Your task to perform on an android device: Open accessibility settings Image 0: 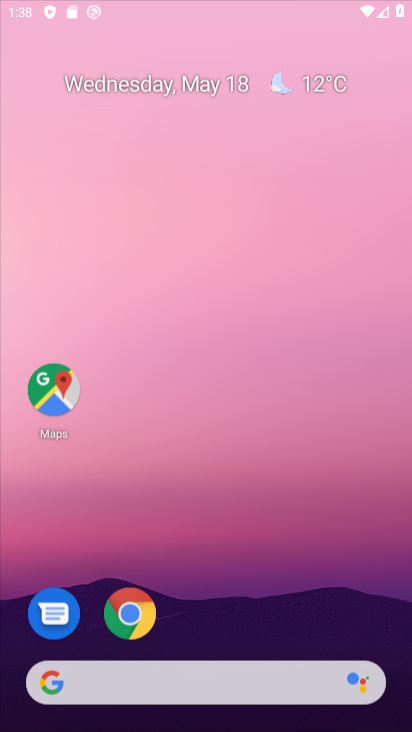
Step 0: click (264, 31)
Your task to perform on an android device: Open accessibility settings Image 1: 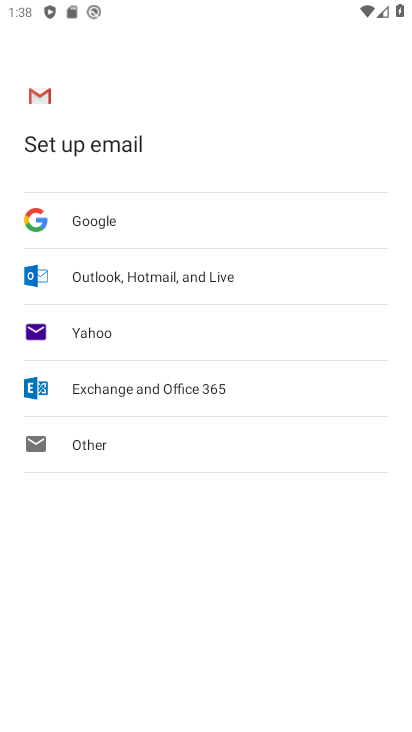
Step 1: press home button
Your task to perform on an android device: Open accessibility settings Image 2: 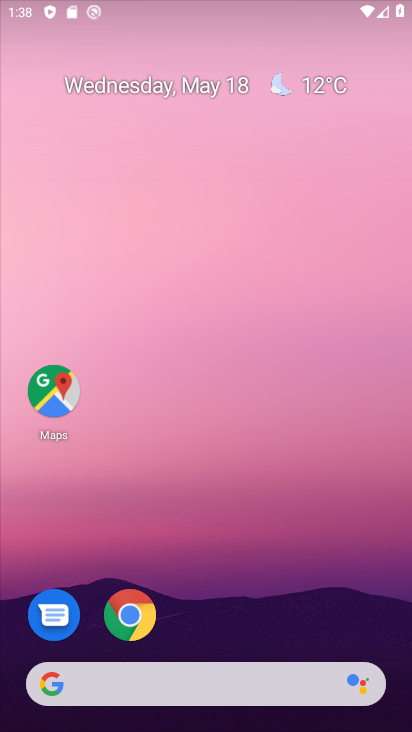
Step 2: drag from (339, 496) to (272, 66)
Your task to perform on an android device: Open accessibility settings Image 3: 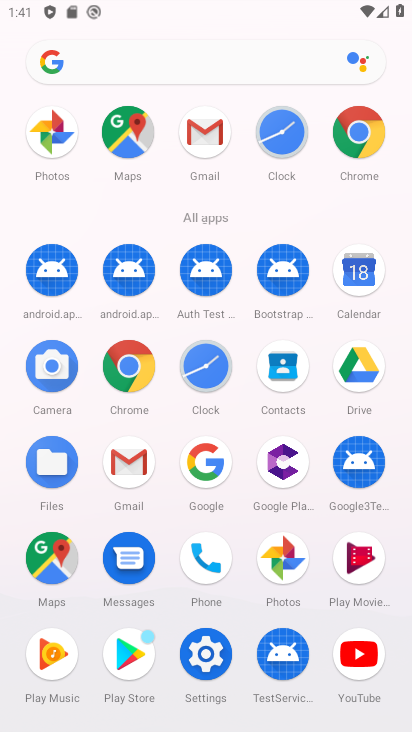
Step 3: click (206, 661)
Your task to perform on an android device: Open accessibility settings Image 4: 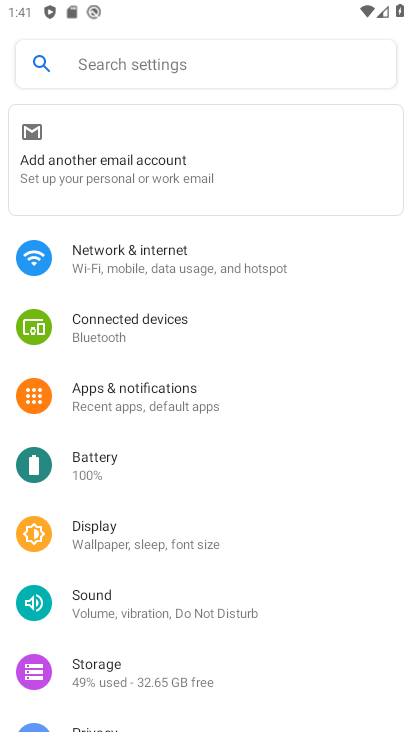
Step 4: drag from (155, 664) to (211, 170)
Your task to perform on an android device: Open accessibility settings Image 5: 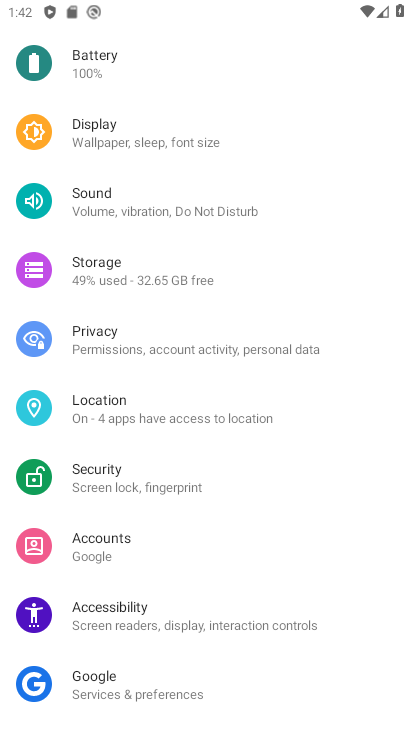
Step 5: click (138, 633)
Your task to perform on an android device: Open accessibility settings Image 6: 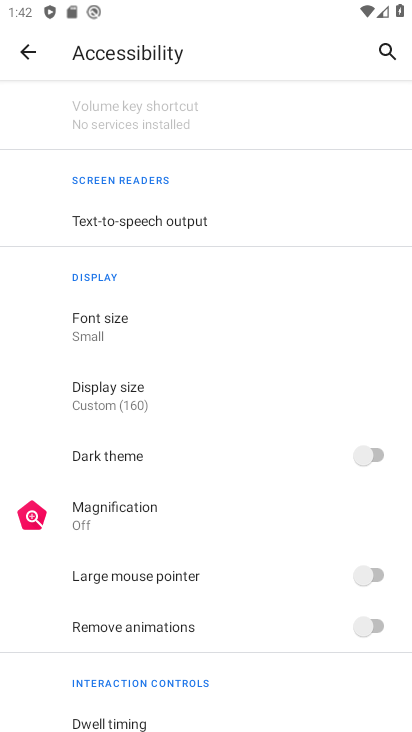
Step 6: task complete